Your task to perform on an android device: change the clock display to digital Image 0: 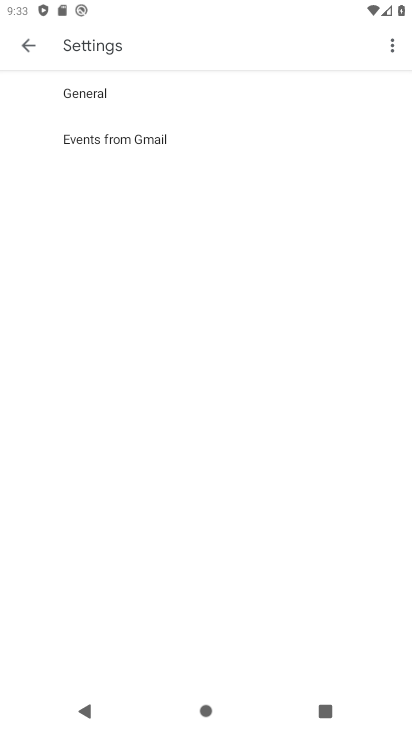
Step 0: press home button
Your task to perform on an android device: change the clock display to digital Image 1: 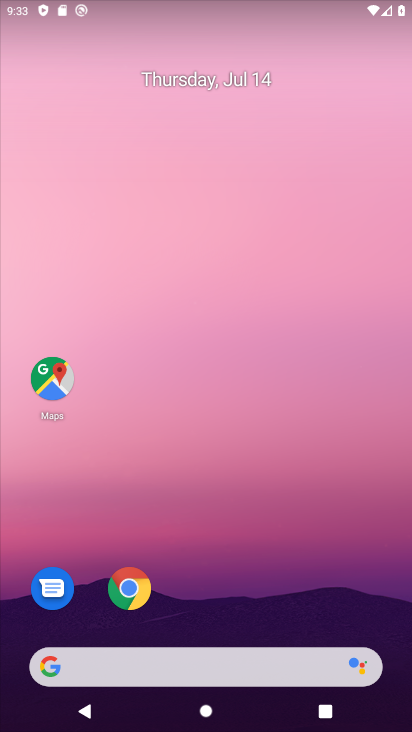
Step 1: drag from (226, 610) to (313, 81)
Your task to perform on an android device: change the clock display to digital Image 2: 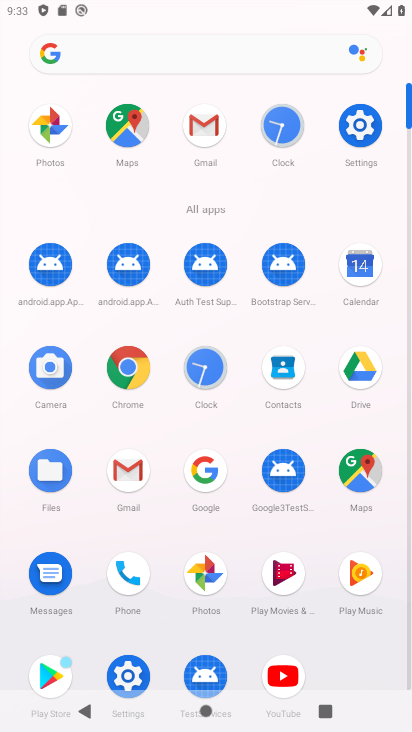
Step 2: click (226, 377)
Your task to perform on an android device: change the clock display to digital Image 3: 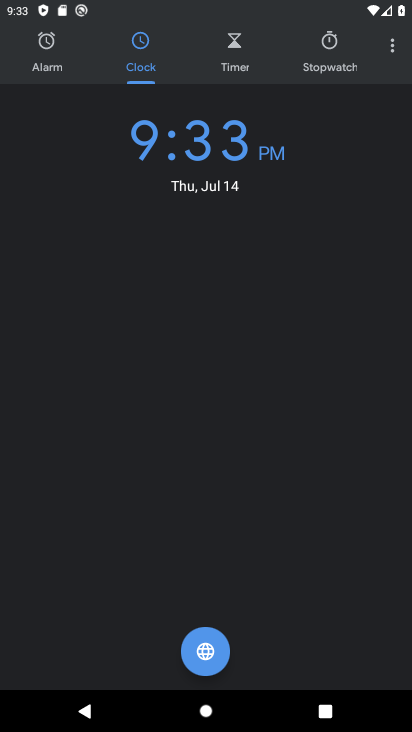
Step 3: click (387, 39)
Your task to perform on an android device: change the clock display to digital Image 4: 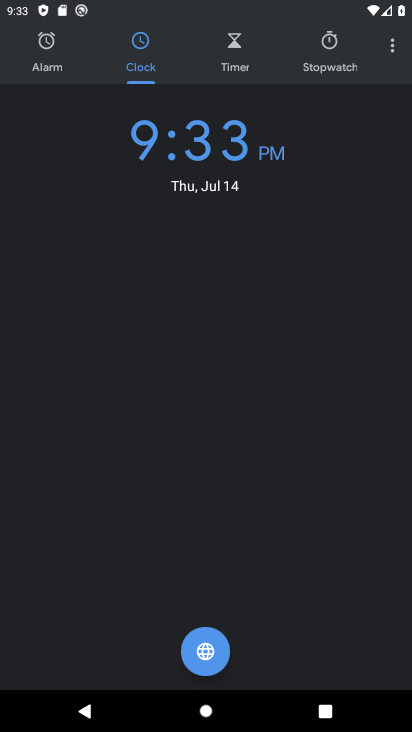
Step 4: click (388, 55)
Your task to perform on an android device: change the clock display to digital Image 5: 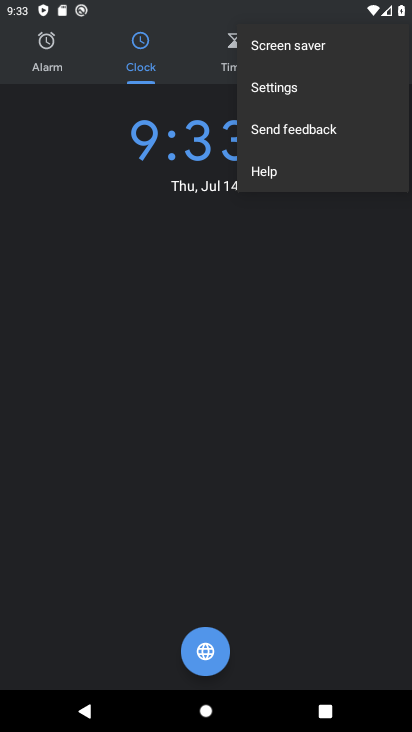
Step 5: click (321, 100)
Your task to perform on an android device: change the clock display to digital Image 6: 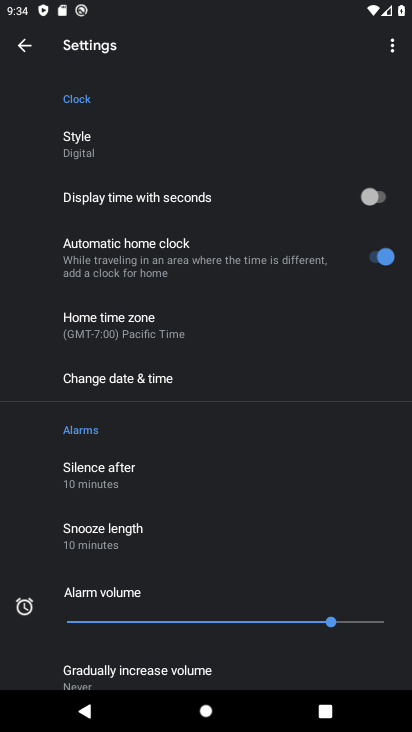
Step 6: task complete